Your task to perform on an android device: check data usage Image 0: 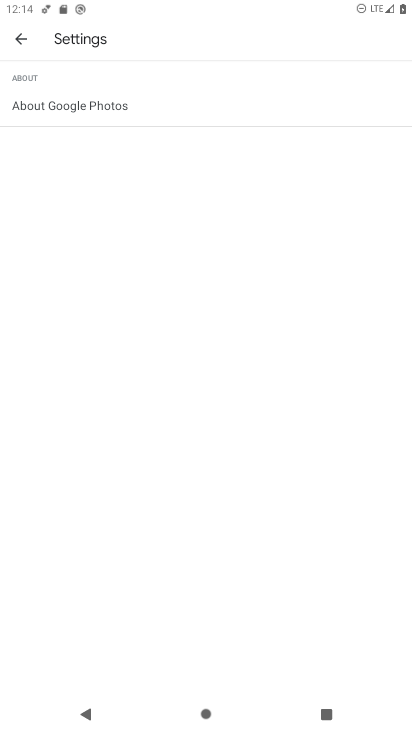
Step 0: press home button
Your task to perform on an android device: check data usage Image 1: 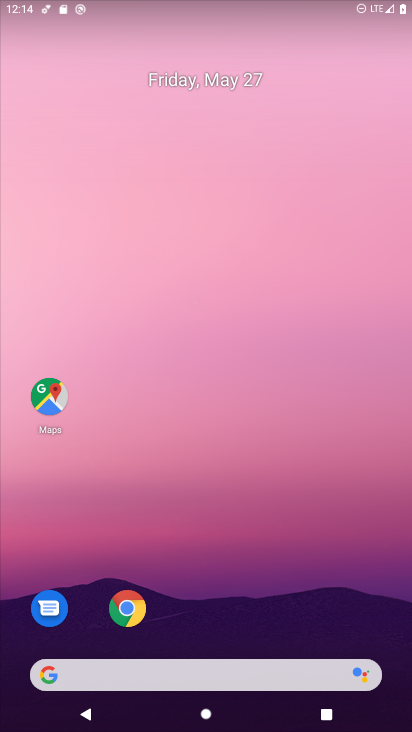
Step 1: drag from (195, 675) to (348, 113)
Your task to perform on an android device: check data usage Image 2: 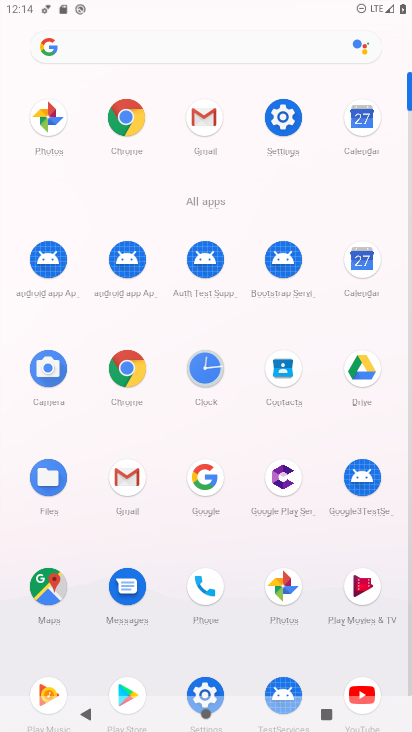
Step 2: click (285, 121)
Your task to perform on an android device: check data usage Image 3: 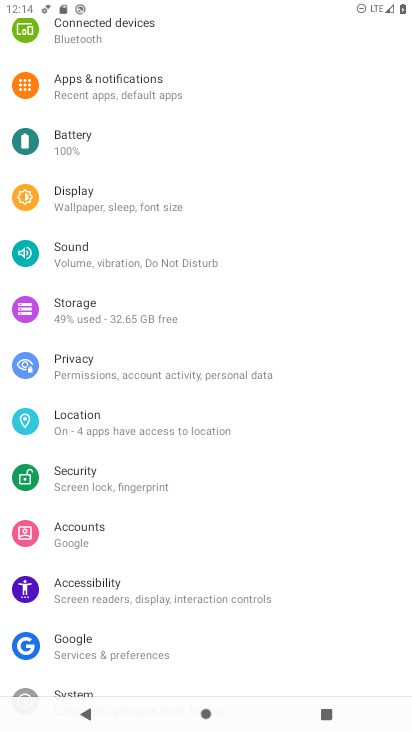
Step 3: drag from (301, 112) to (245, 528)
Your task to perform on an android device: check data usage Image 4: 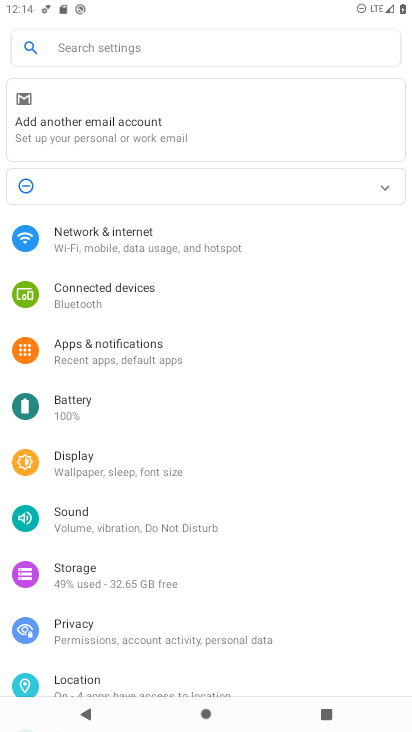
Step 4: click (129, 239)
Your task to perform on an android device: check data usage Image 5: 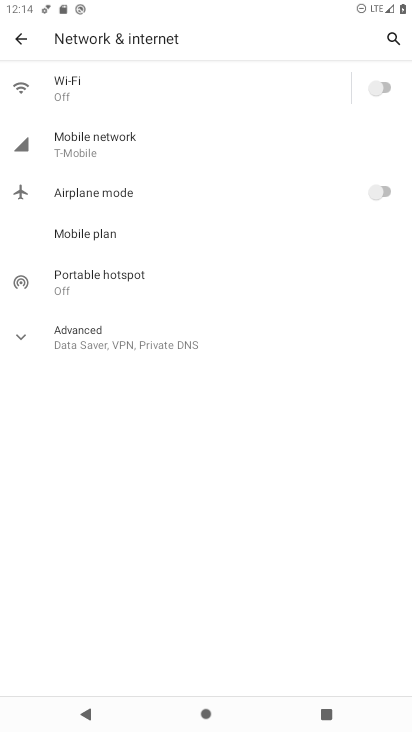
Step 5: click (75, 90)
Your task to perform on an android device: check data usage Image 6: 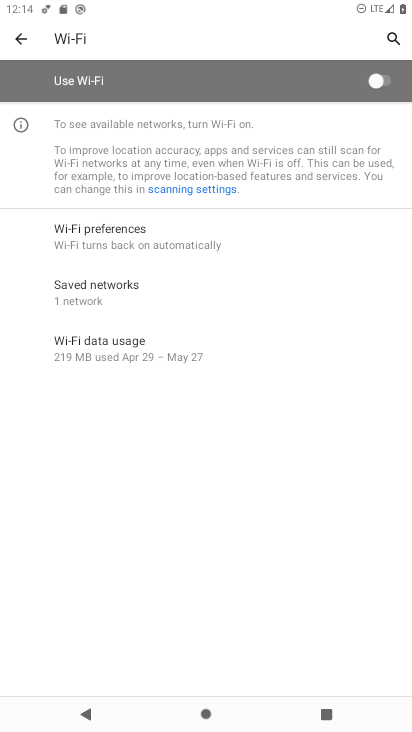
Step 6: task complete